Your task to perform on an android device: Go to sound settings Image 0: 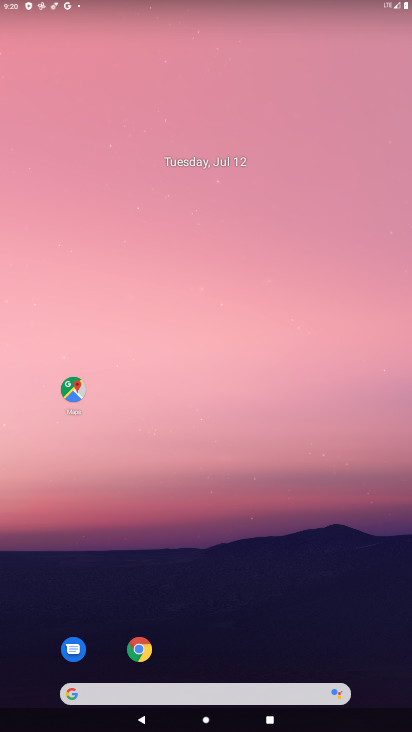
Step 0: drag from (316, 652) to (199, 81)
Your task to perform on an android device: Go to sound settings Image 1: 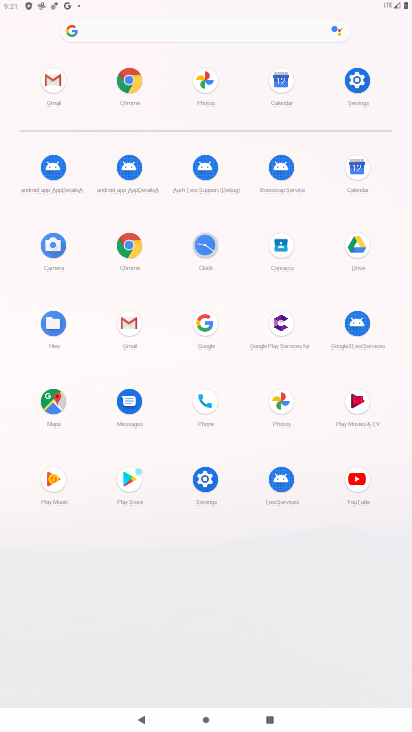
Step 1: click (347, 89)
Your task to perform on an android device: Go to sound settings Image 2: 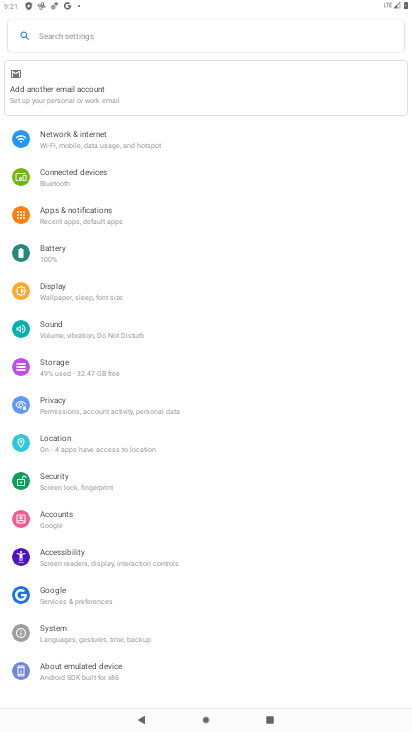
Step 2: click (95, 332)
Your task to perform on an android device: Go to sound settings Image 3: 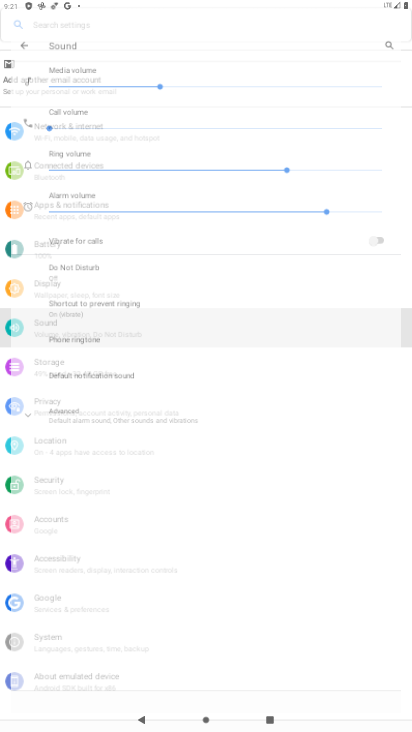
Step 3: task complete